Your task to perform on an android device: turn on the 12-hour format for clock Image 0: 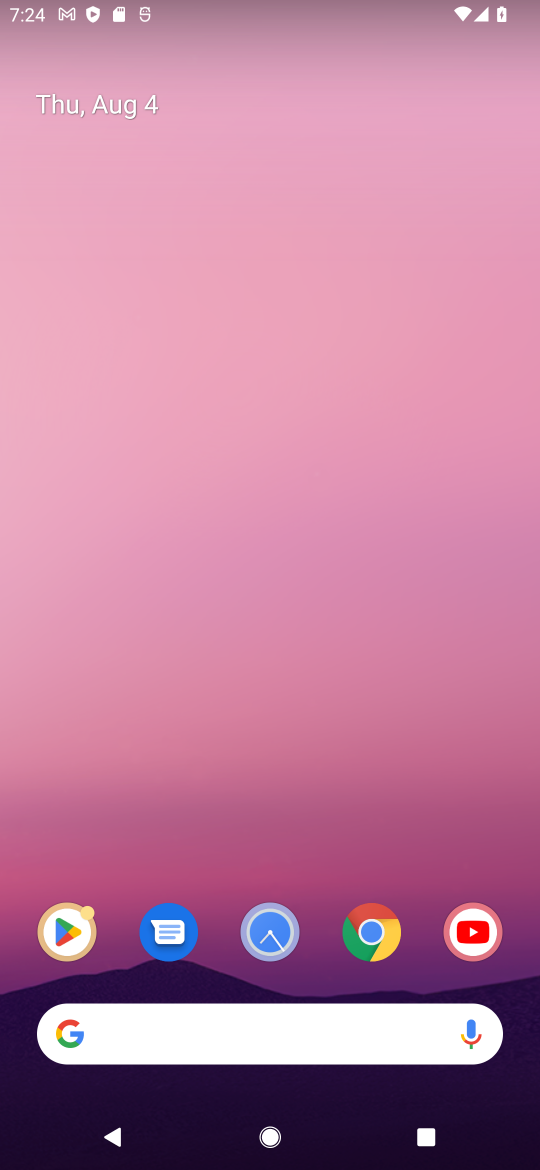
Step 0: click (295, 363)
Your task to perform on an android device: turn on the 12-hour format for clock Image 1: 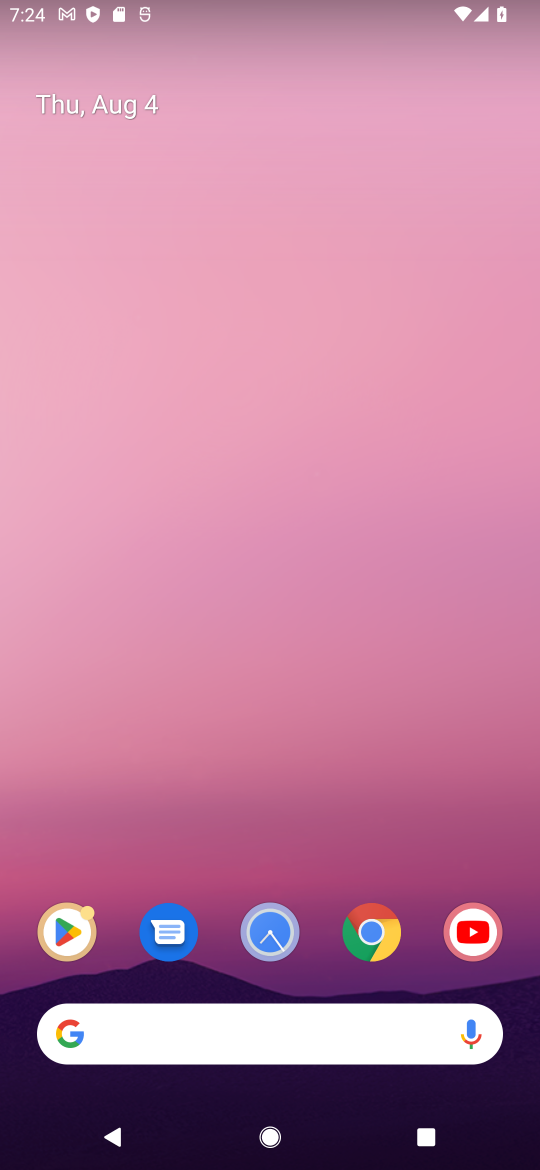
Step 1: drag from (290, 838) to (313, 212)
Your task to perform on an android device: turn on the 12-hour format for clock Image 2: 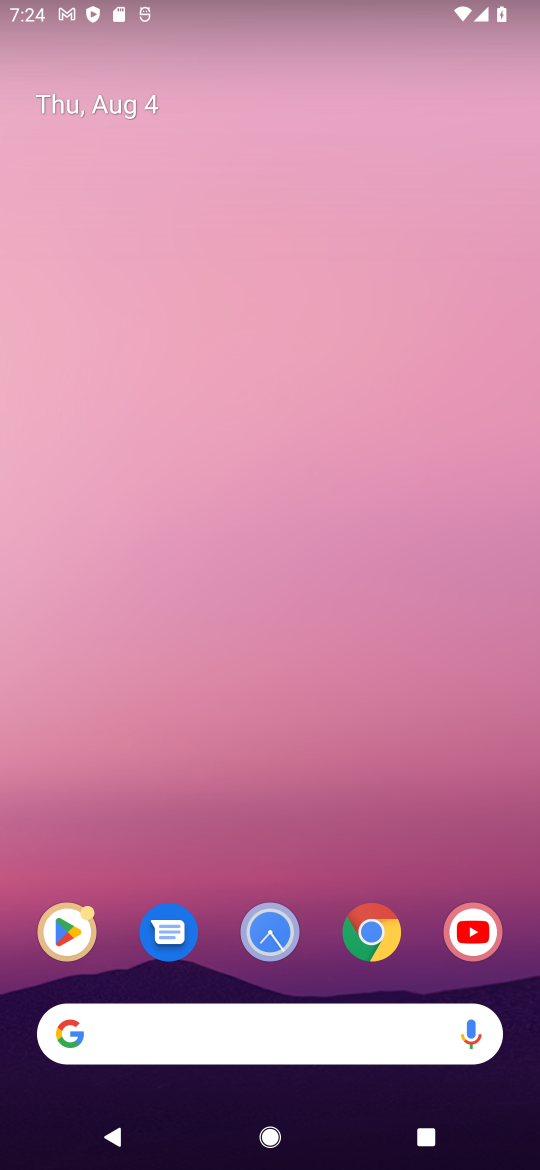
Step 2: drag from (315, 563) to (228, 308)
Your task to perform on an android device: turn on the 12-hour format for clock Image 3: 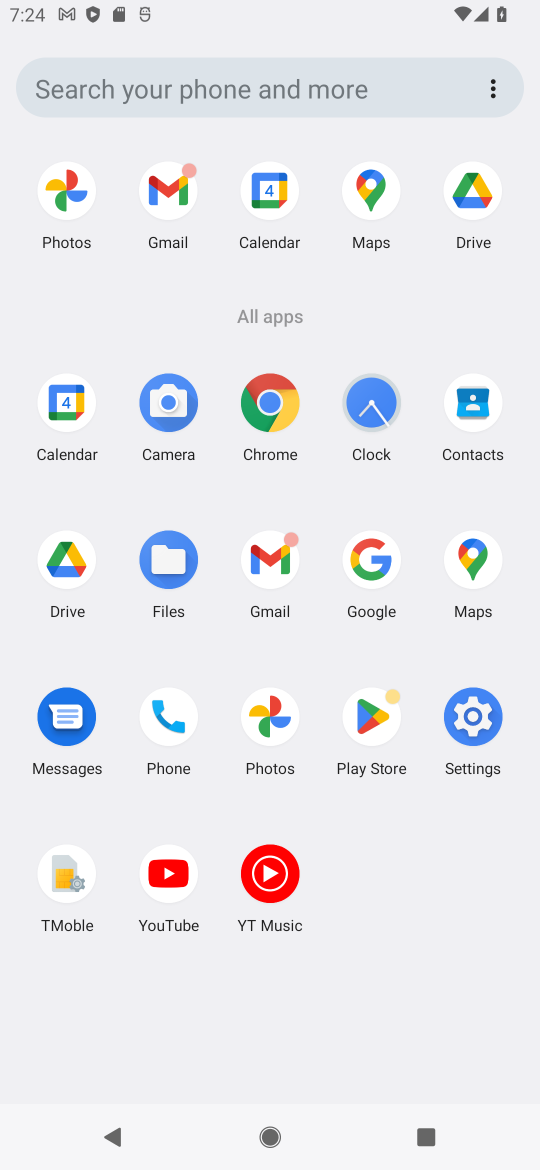
Step 3: drag from (285, 887) to (214, 56)
Your task to perform on an android device: turn on the 12-hour format for clock Image 4: 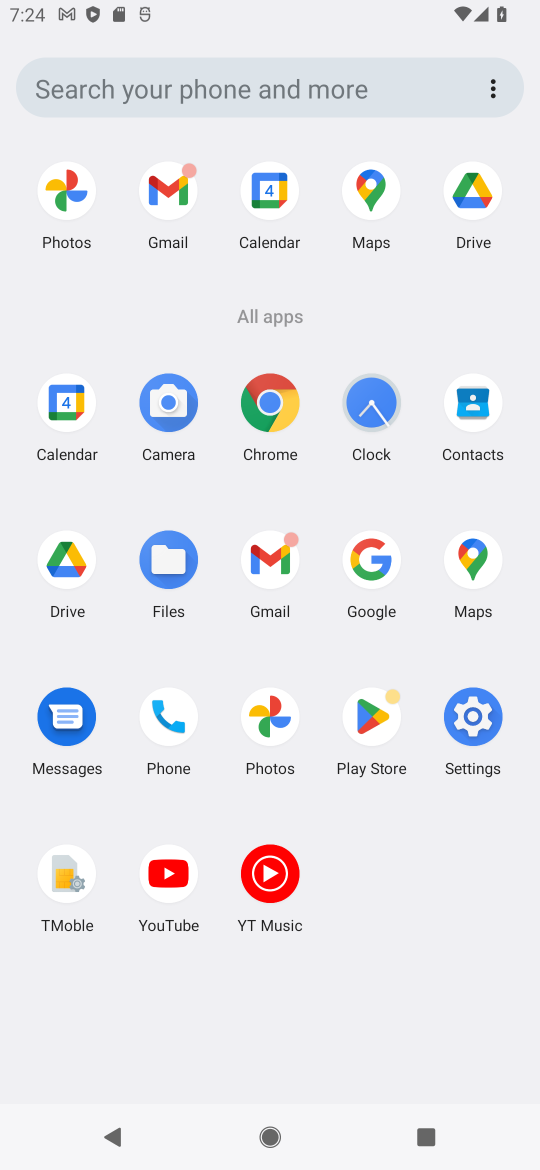
Step 4: click (367, 410)
Your task to perform on an android device: turn on the 12-hour format for clock Image 5: 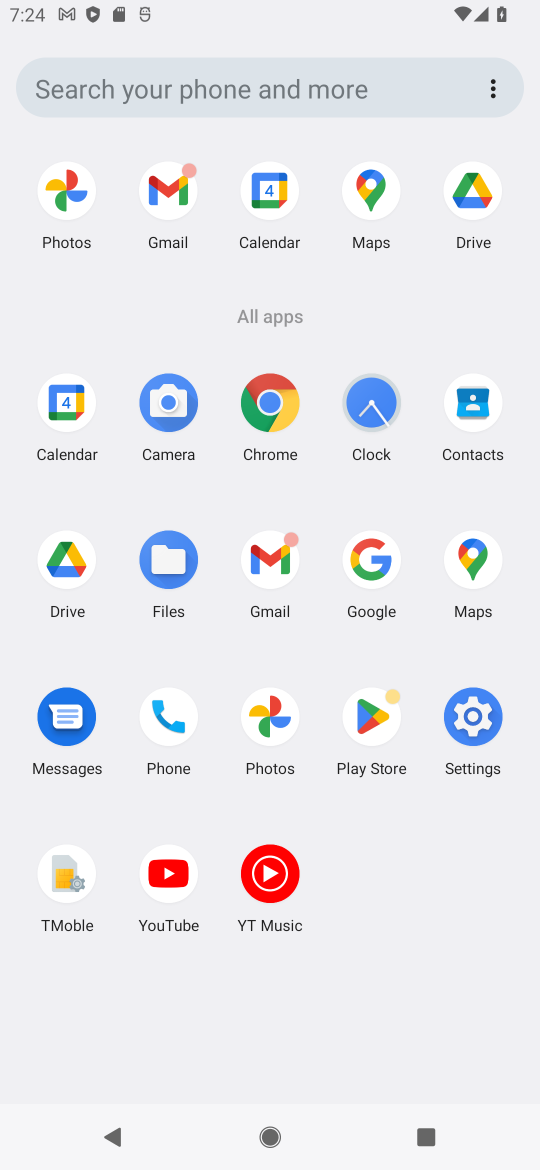
Step 5: click (367, 410)
Your task to perform on an android device: turn on the 12-hour format for clock Image 6: 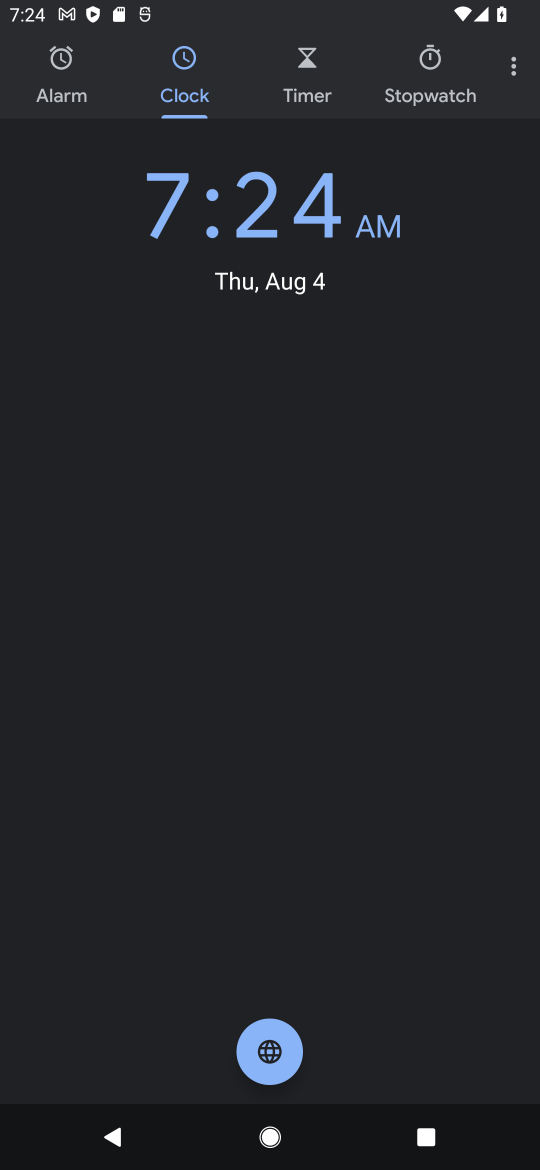
Step 6: click (499, 66)
Your task to perform on an android device: turn on the 12-hour format for clock Image 7: 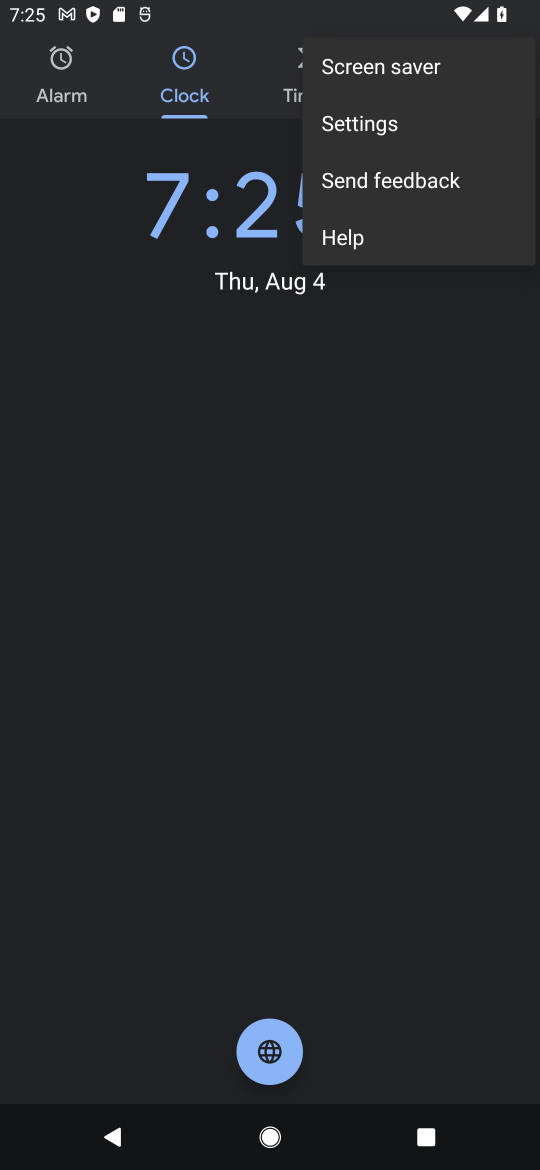
Step 7: click (383, 116)
Your task to perform on an android device: turn on the 12-hour format for clock Image 8: 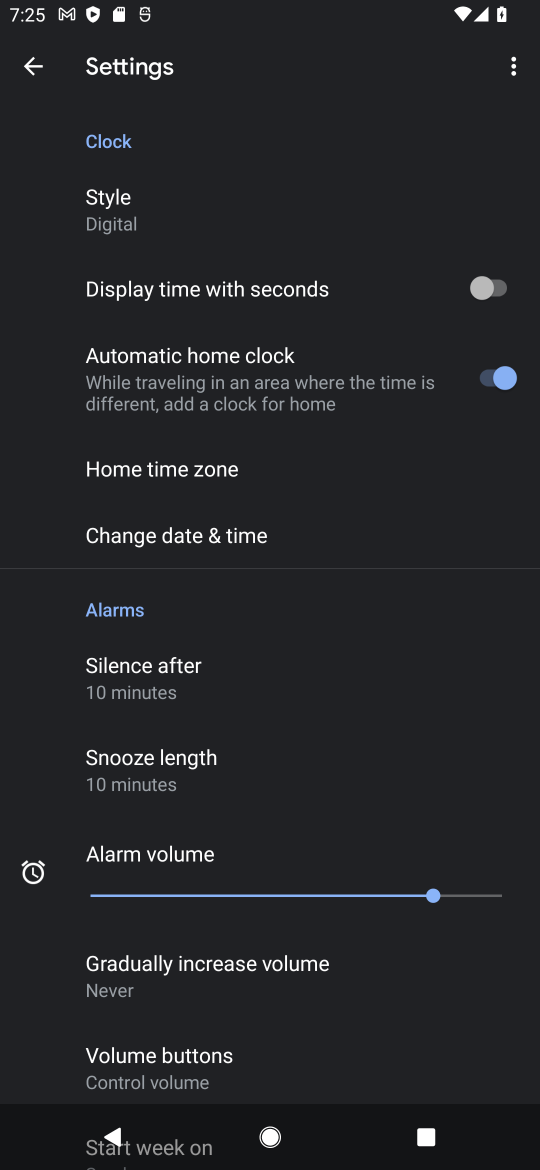
Step 8: click (192, 528)
Your task to perform on an android device: turn on the 12-hour format for clock Image 9: 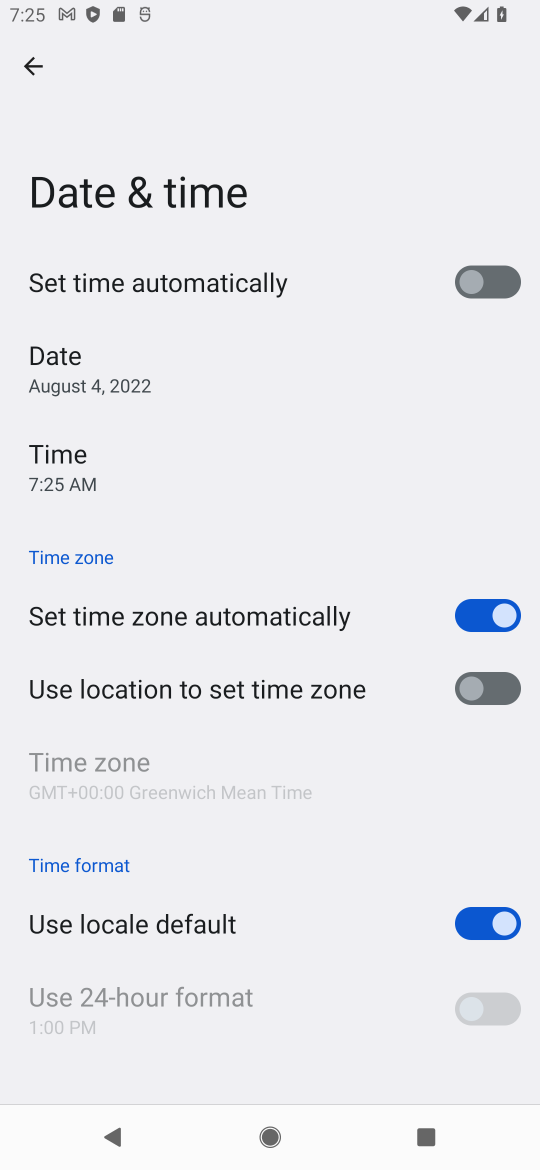
Step 9: click (471, 989)
Your task to perform on an android device: turn on the 12-hour format for clock Image 10: 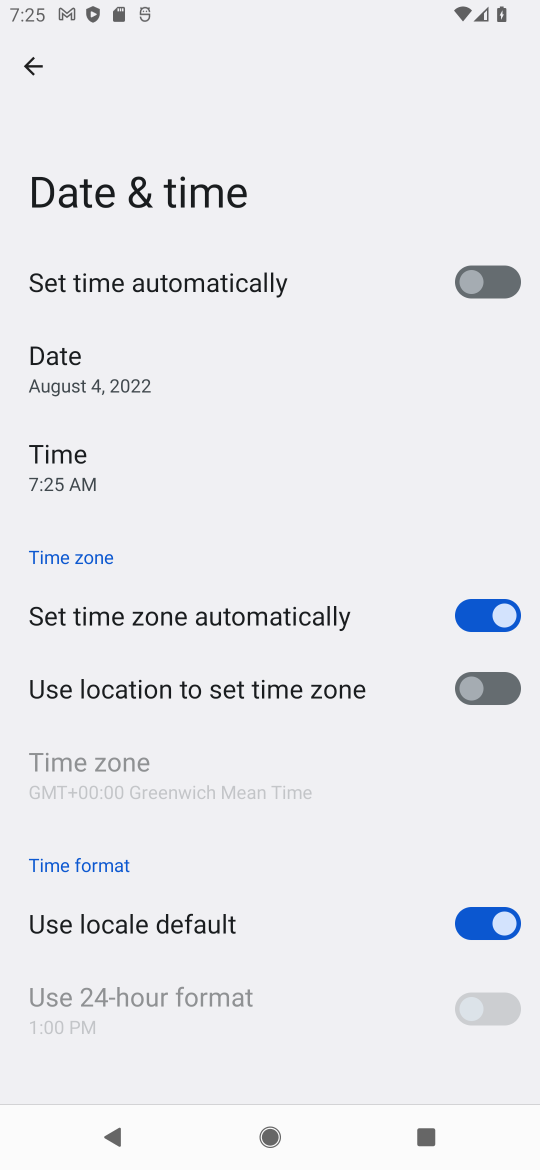
Step 10: task complete